Your task to perform on an android device: turn off airplane mode Image 0: 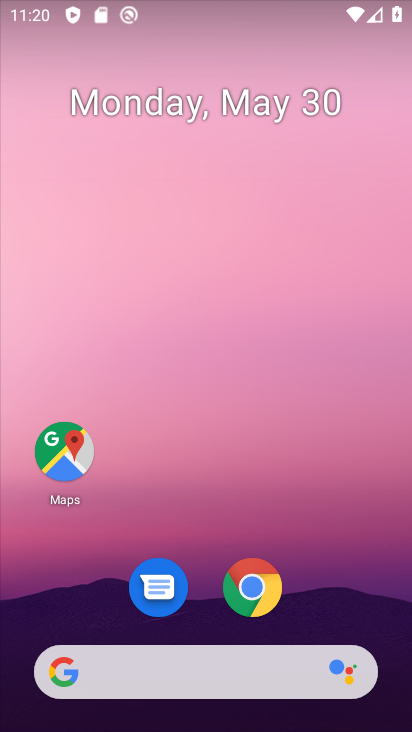
Step 0: drag from (290, 9) to (381, 501)
Your task to perform on an android device: turn off airplane mode Image 1: 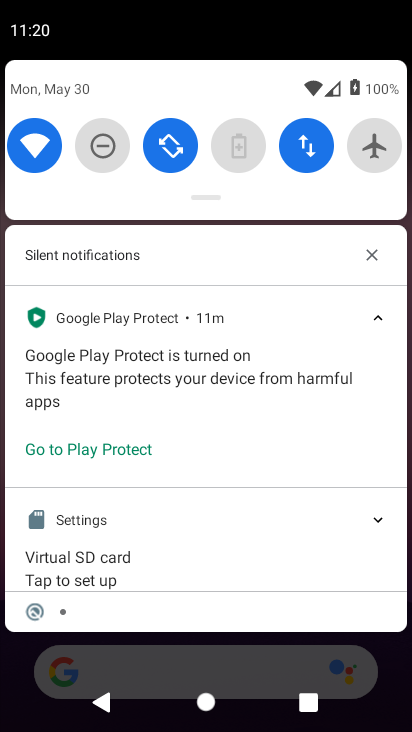
Step 1: task complete